Your task to perform on an android device: Do I have any events this weekend? Image 0: 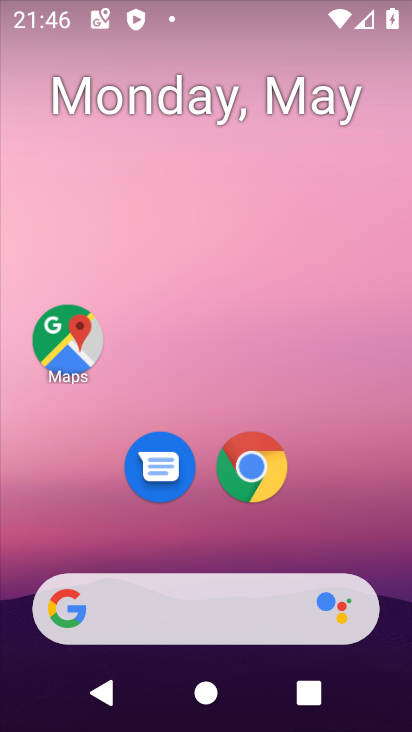
Step 0: drag from (259, 648) to (285, 258)
Your task to perform on an android device: Do I have any events this weekend? Image 1: 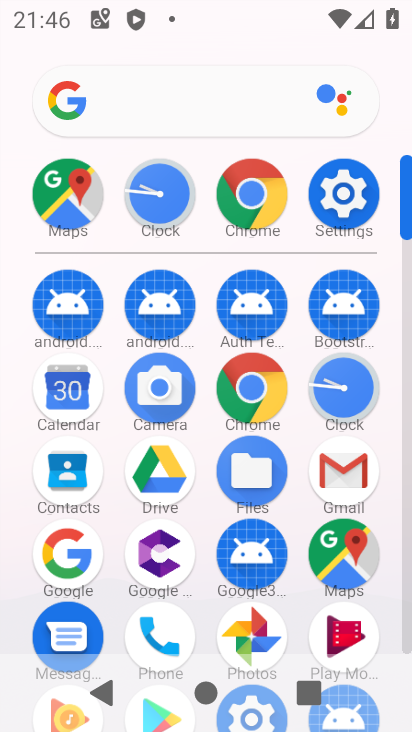
Step 1: click (56, 379)
Your task to perform on an android device: Do I have any events this weekend? Image 2: 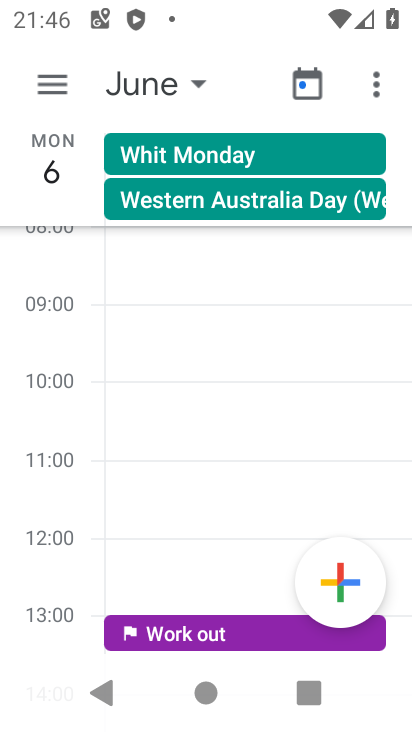
Step 2: click (34, 76)
Your task to perform on an android device: Do I have any events this weekend? Image 3: 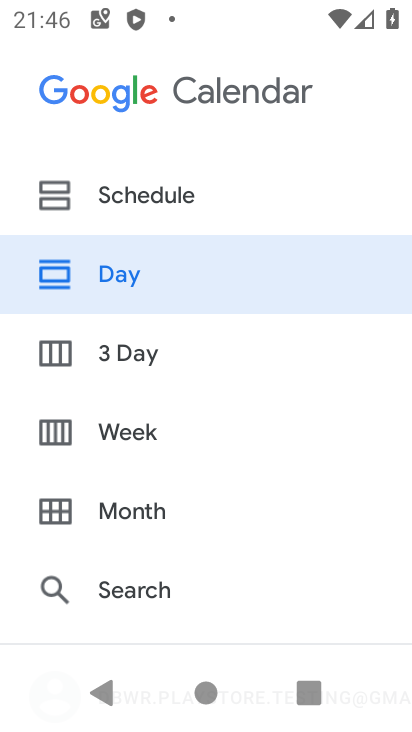
Step 3: click (124, 512)
Your task to perform on an android device: Do I have any events this weekend? Image 4: 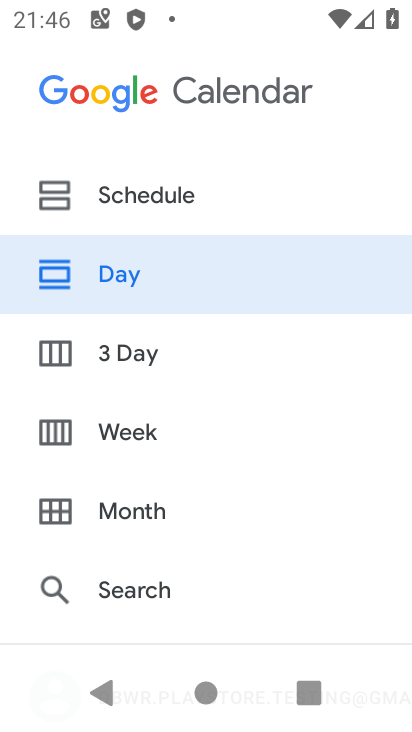
Step 4: click (124, 512)
Your task to perform on an android device: Do I have any events this weekend? Image 5: 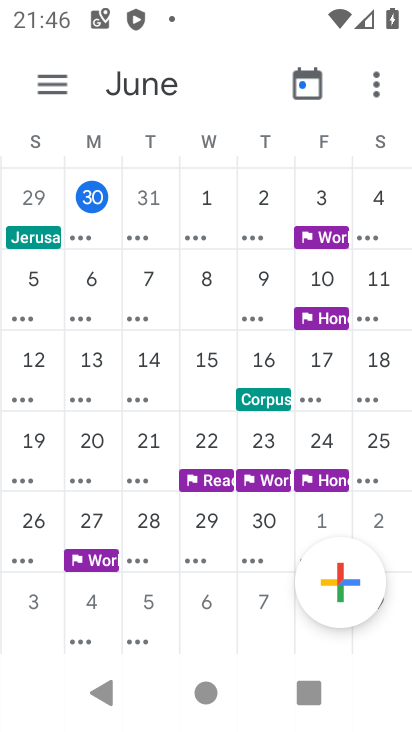
Step 5: drag from (64, 413) to (367, 205)
Your task to perform on an android device: Do I have any events this weekend? Image 6: 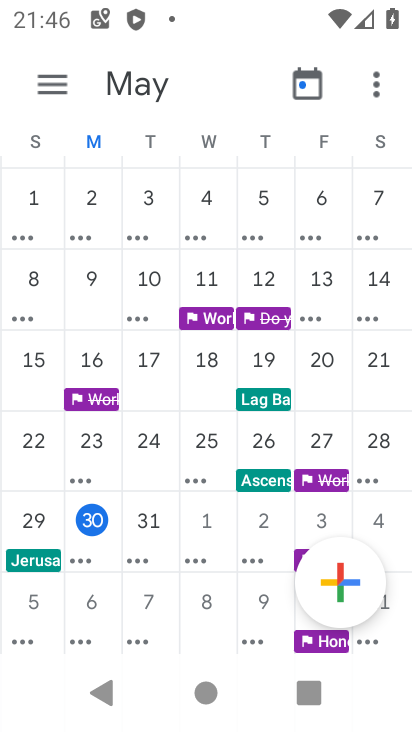
Step 6: click (55, 89)
Your task to perform on an android device: Do I have any events this weekend? Image 7: 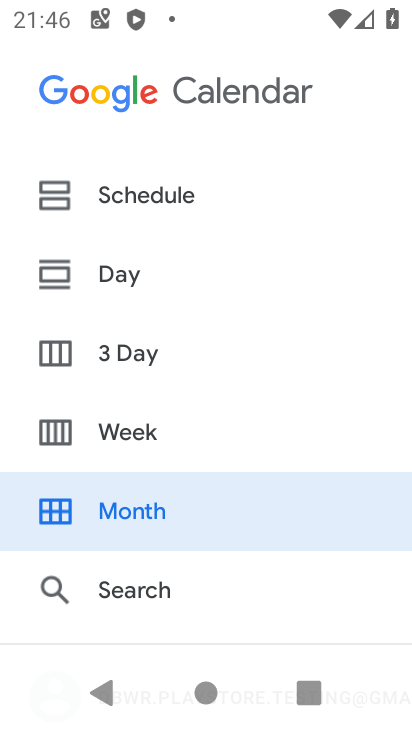
Step 7: click (113, 431)
Your task to perform on an android device: Do I have any events this weekend? Image 8: 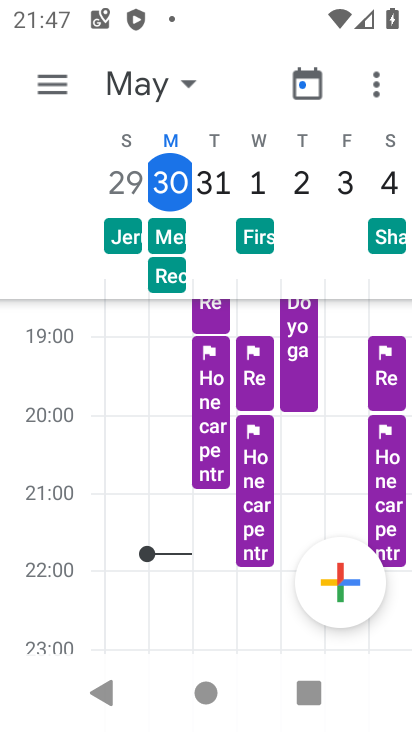
Step 8: task complete